Your task to perform on an android device: Open Reddit.com Image 0: 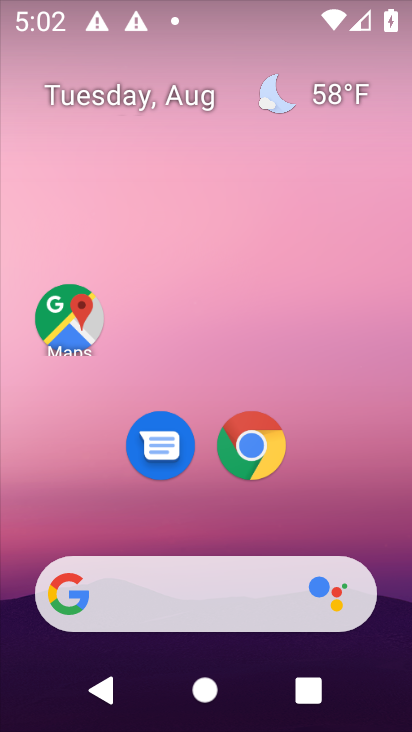
Step 0: click (247, 437)
Your task to perform on an android device: Open Reddit.com Image 1: 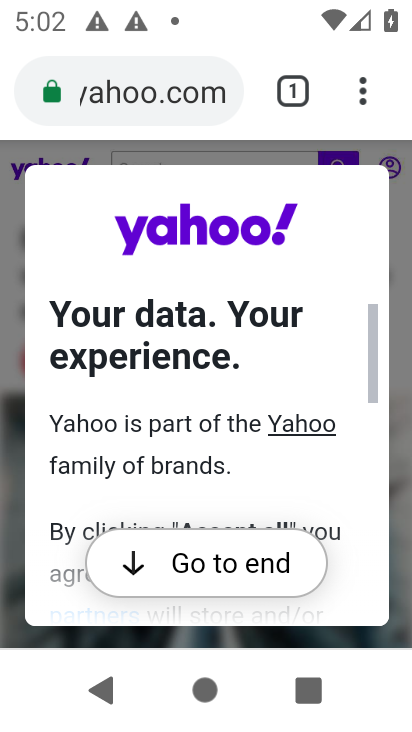
Step 1: click (203, 87)
Your task to perform on an android device: Open Reddit.com Image 2: 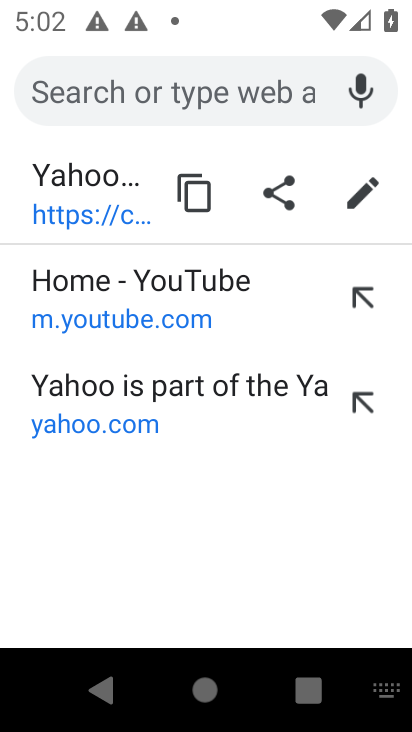
Step 2: type "www.reddit.com"
Your task to perform on an android device: Open Reddit.com Image 3: 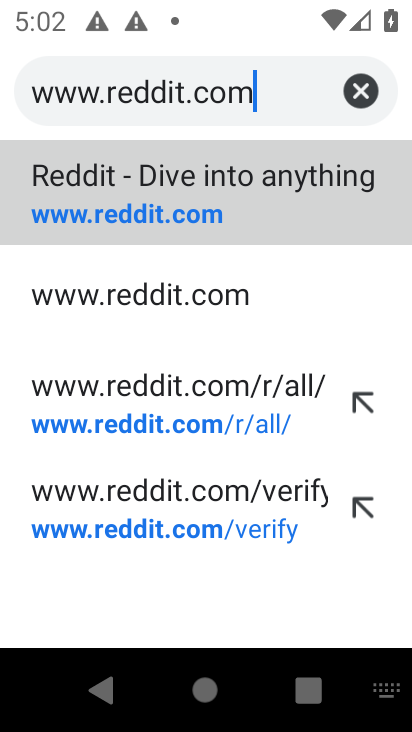
Step 3: click (197, 201)
Your task to perform on an android device: Open Reddit.com Image 4: 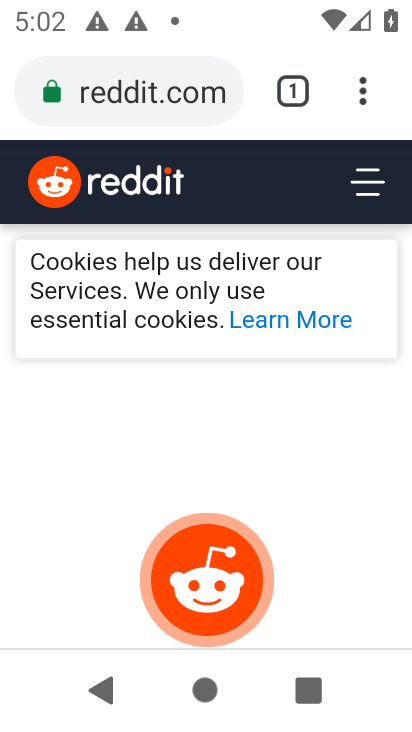
Step 4: task complete